Your task to perform on an android device: Set the phone to "Do not disturb". Image 0: 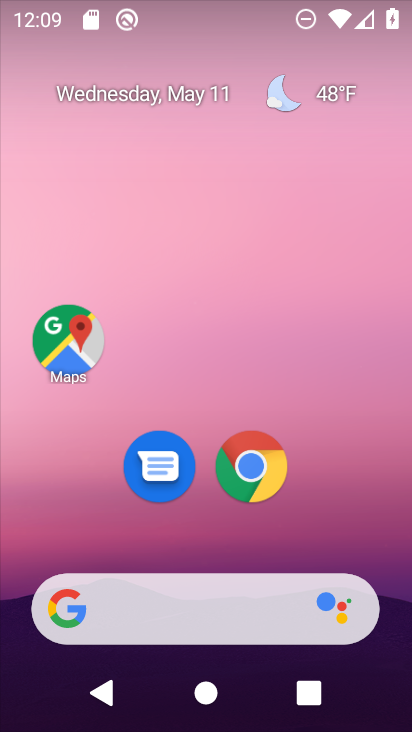
Step 0: press home button
Your task to perform on an android device: Set the phone to "Do not disturb". Image 1: 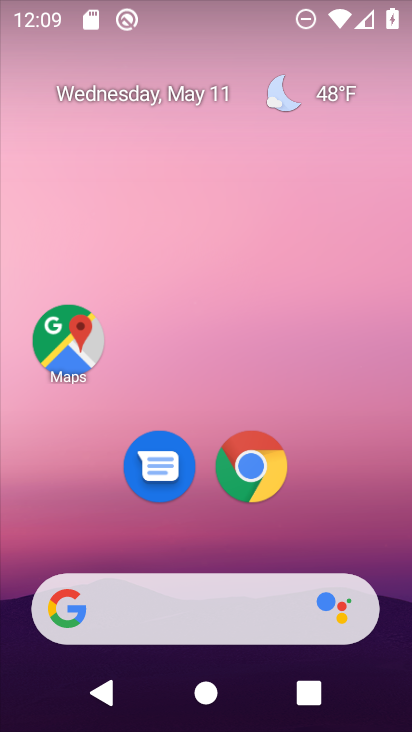
Step 1: task complete